Your task to perform on an android device: turn off priority inbox in the gmail app Image 0: 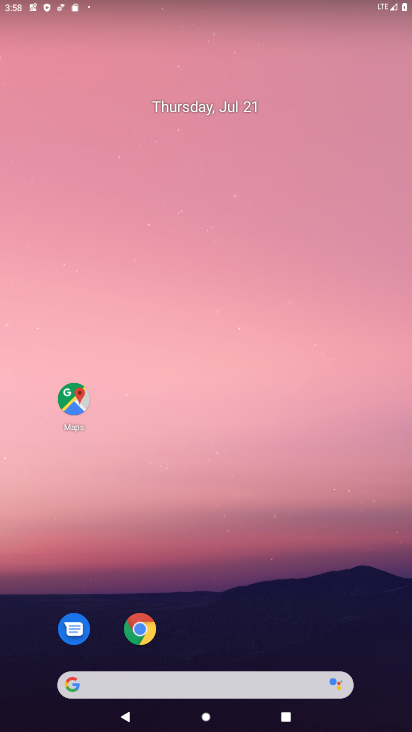
Step 0: drag from (379, 631) to (289, 163)
Your task to perform on an android device: turn off priority inbox in the gmail app Image 1: 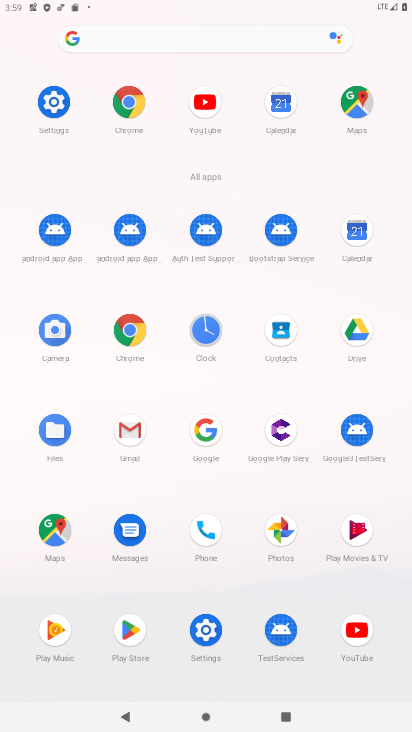
Step 1: click (136, 430)
Your task to perform on an android device: turn off priority inbox in the gmail app Image 2: 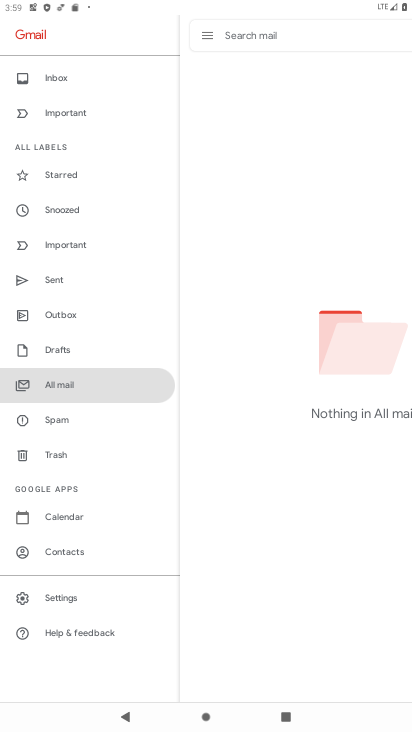
Step 2: click (57, 601)
Your task to perform on an android device: turn off priority inbox in the gmail app Image 3: 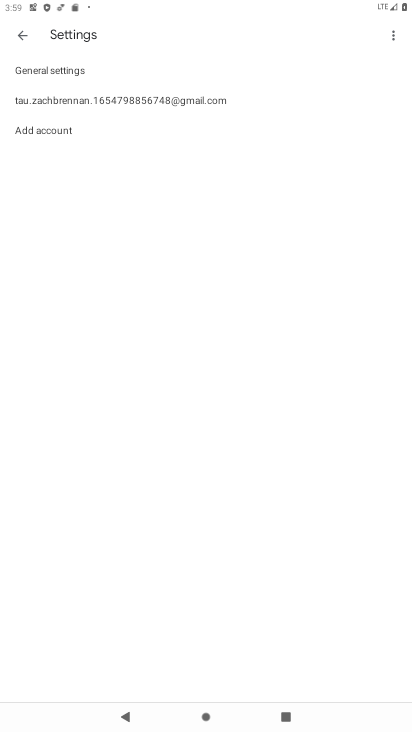
Step 3: click (275, 104)
Your task to perform on an android device: turn off priority inbox in the gmail app Image 4: 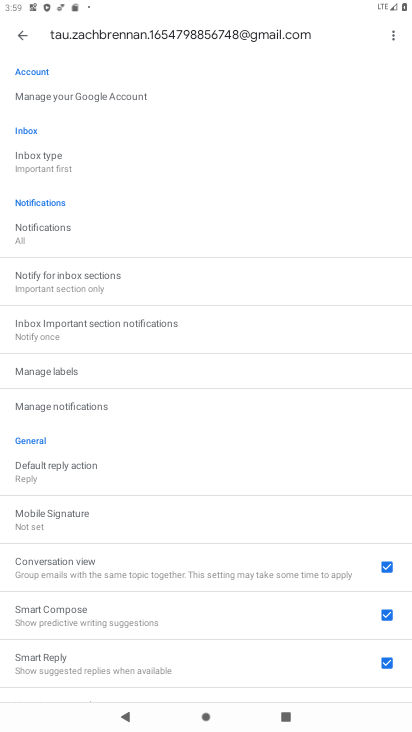
Step 4: click (91, 161)
Your task to perform on an android device: turn off priority inbox in the gmail app Image 5: 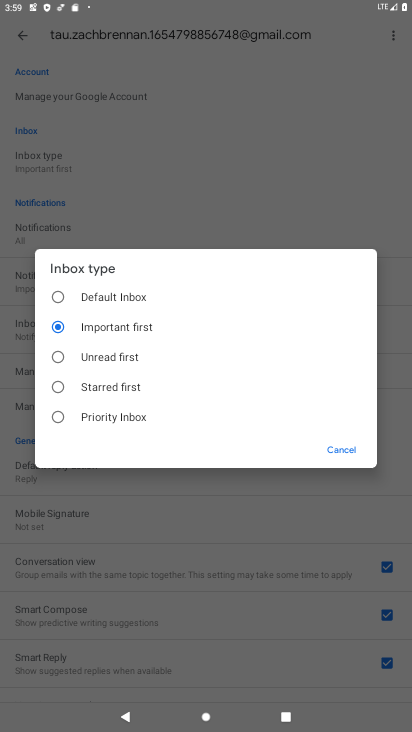
Step 5: task complete